Your task to perform on an android device: Go to display settings Image 0: 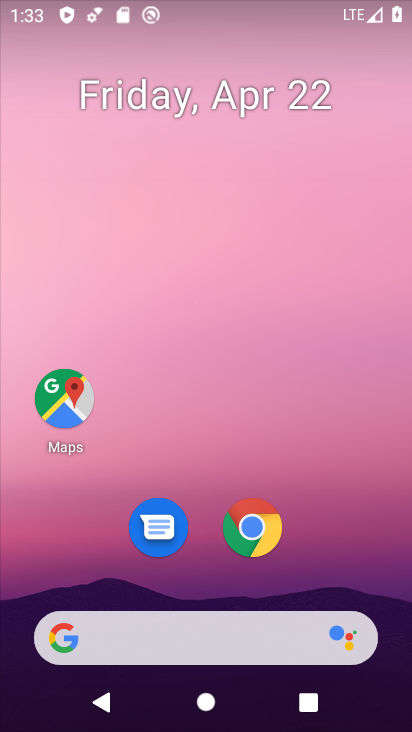
Step 0: drag from (312, 532) to (263, 84)
Your task to perform on an android device: Go to display settings Image 1: 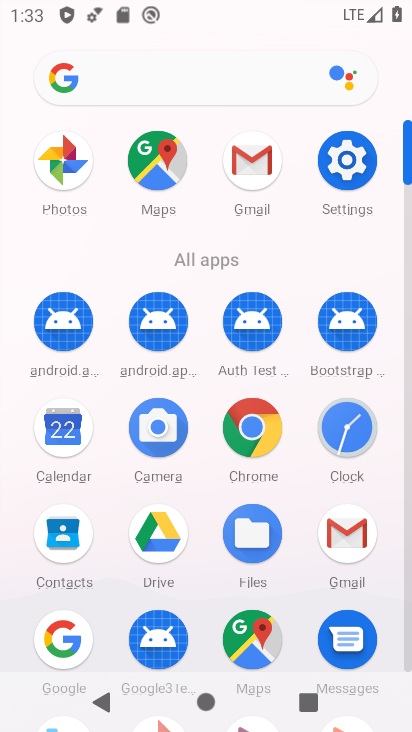
Step 1: click (347, 159)
Your task to perform on an android device: Go to display settings Image 2: 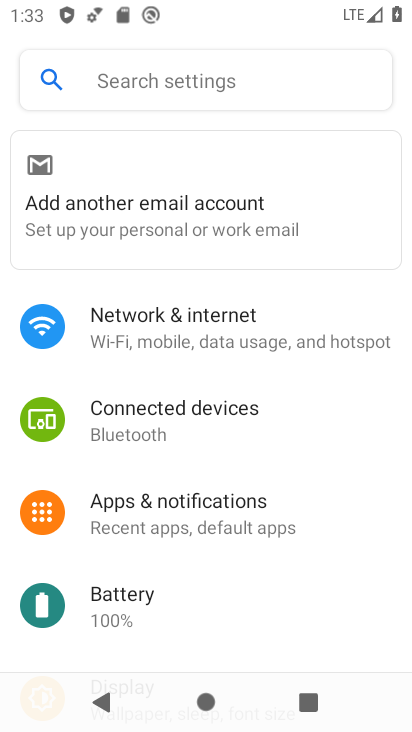
Step 2: drag from (237, 569) to (248, 89)
Your task to perform on an android device: Go to display settings Image 3: 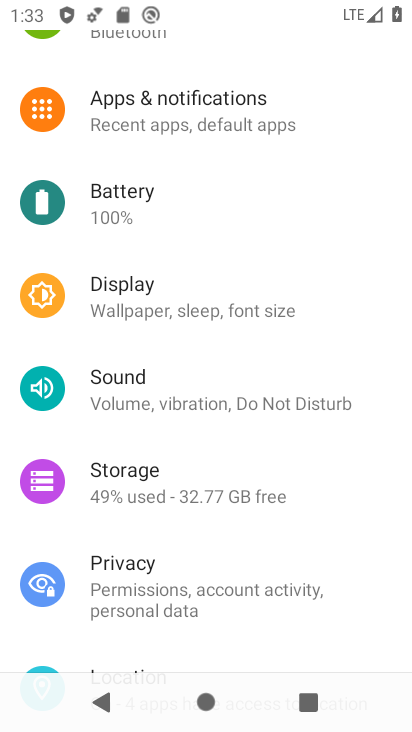
Step 3: click (205, 310)
Your task to perform on an android device: Go to display settings Image 4: 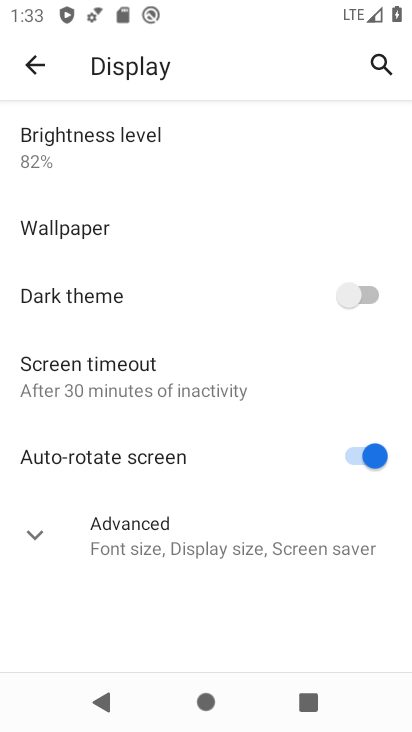
Step 4: click (157, 545)
Your task to perform on an android device: Go to display settings Image 5: 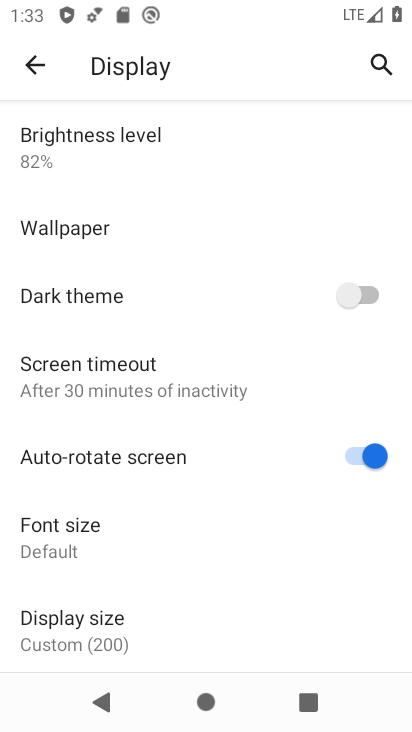
Step 5: task complete